Your task to perform on an android device: choose inbox layout in the gmail app Image 0: 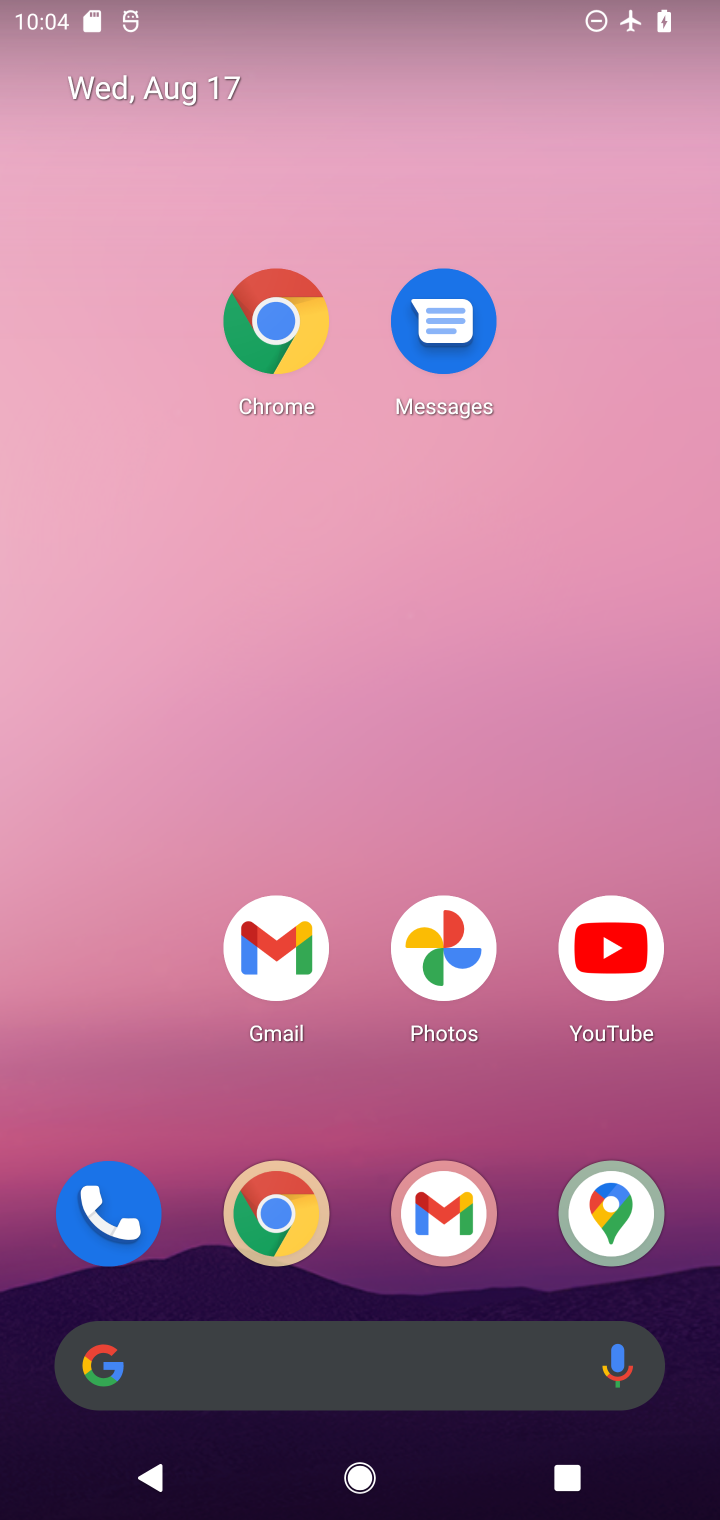
Step 0: click (405, 1218)
Your task to perform on an android device: choose inbox layout in the gmail app Image 1: 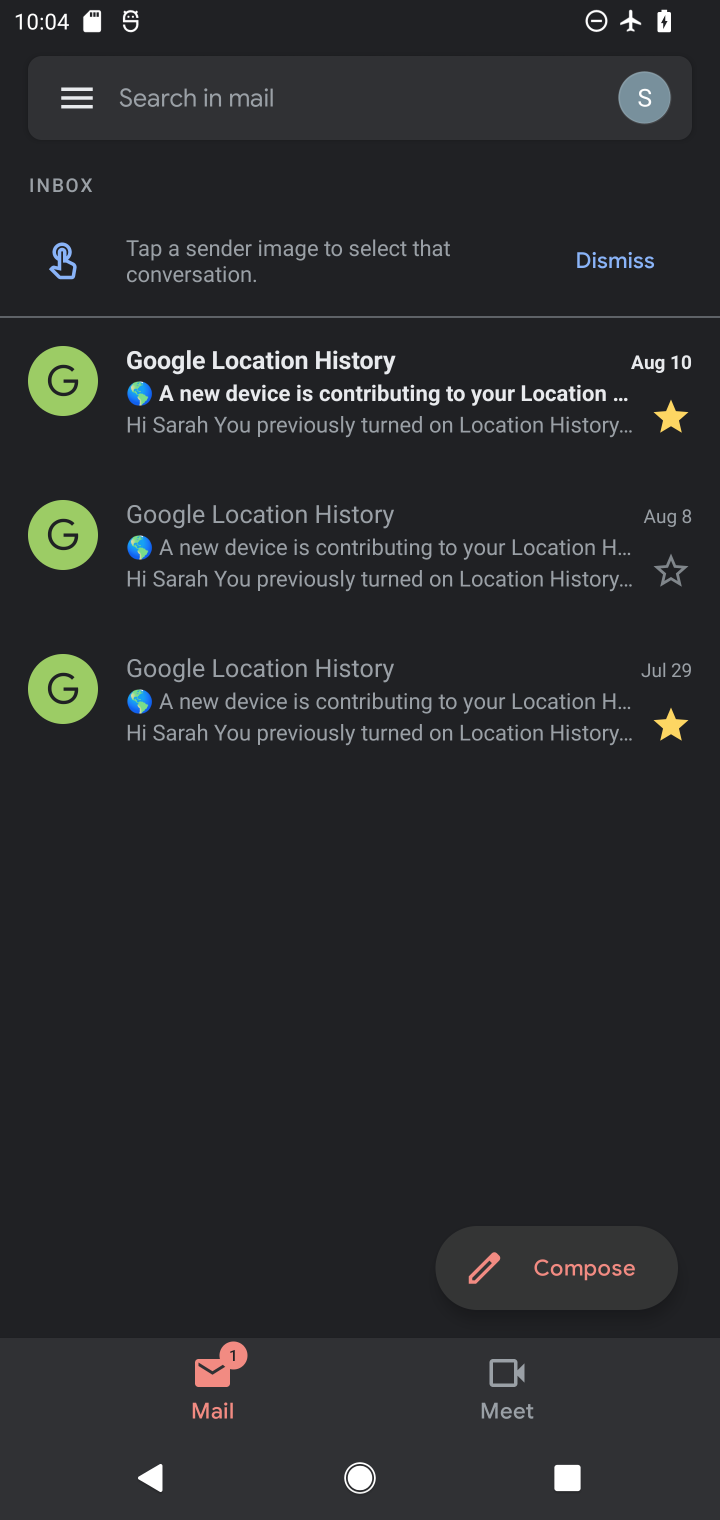
Step 1: click (73, 87)
Your task to perform on an android device: choose inbox layout in the gmail app Image 2: 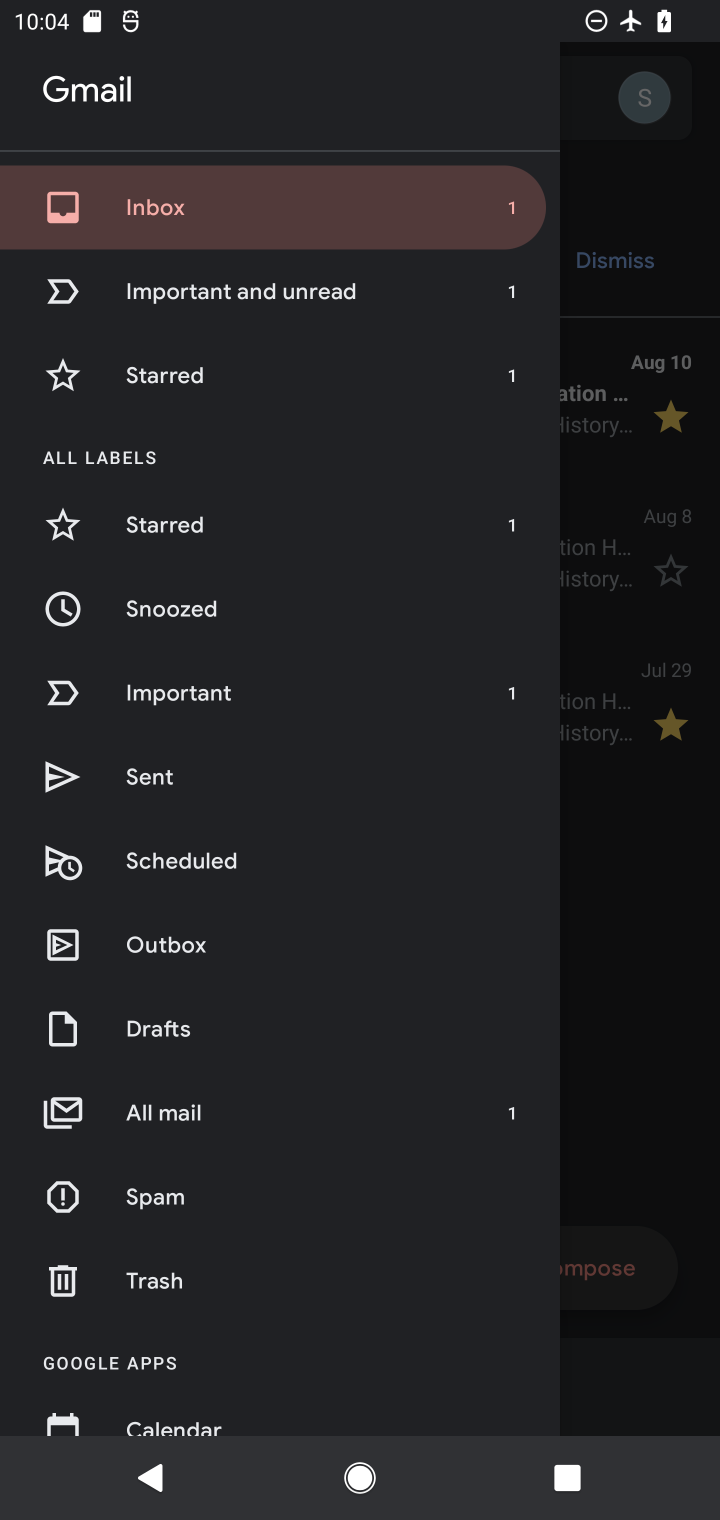
Step 2: task complete